Your task to perform on an android device: Open the phone app and click the voicemail tab. Image 0: 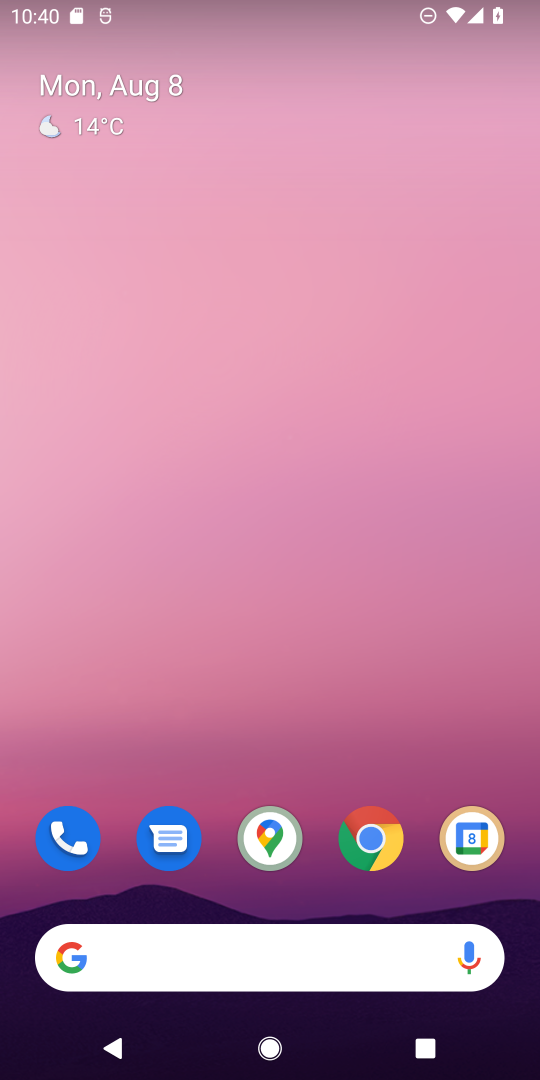
Step 0: drag from (234, 695) to (320, 136)
Your task to perform on an android device: Open the phone app and click the voicemail tab. Image 1: 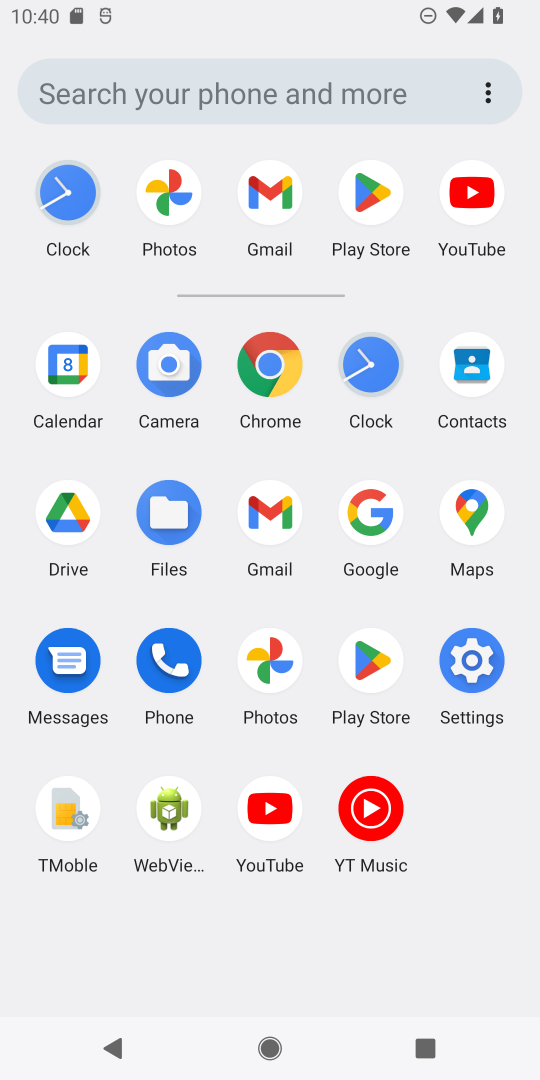
Step 1: click (173, 663)
Your task to perform on an android device: Open the phone app and click the voicemail tab. Image 2: 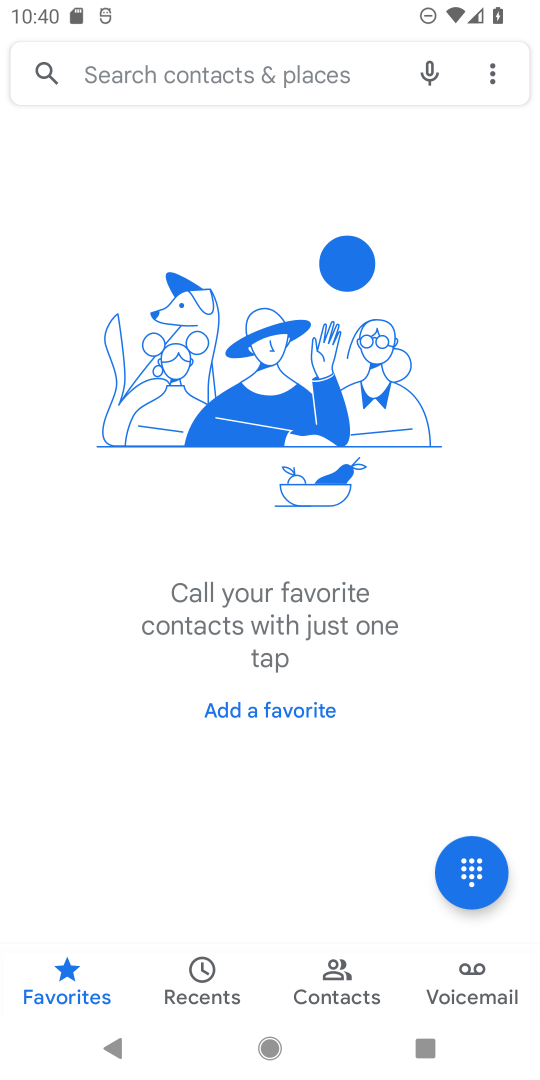
Step 2: click (478, 976)
Your task to perform on an android device: Open the phone app and click the voicemail tab. Image 3: 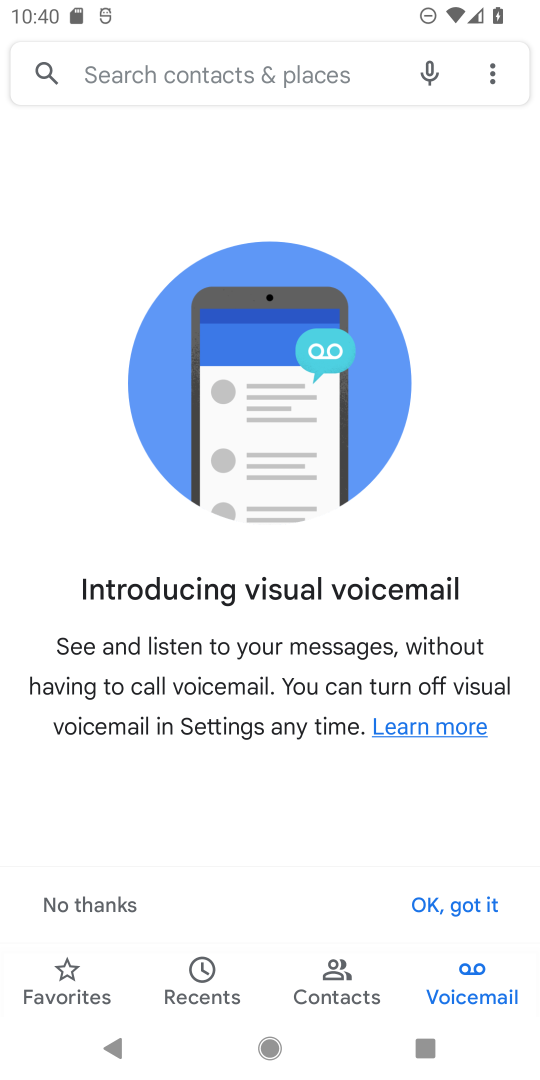
Step 3: task complete